Your task to perform on an android device: Clear all items from cart on costco. Add razer blade to the cart on costco, then select checkout. Image 0: 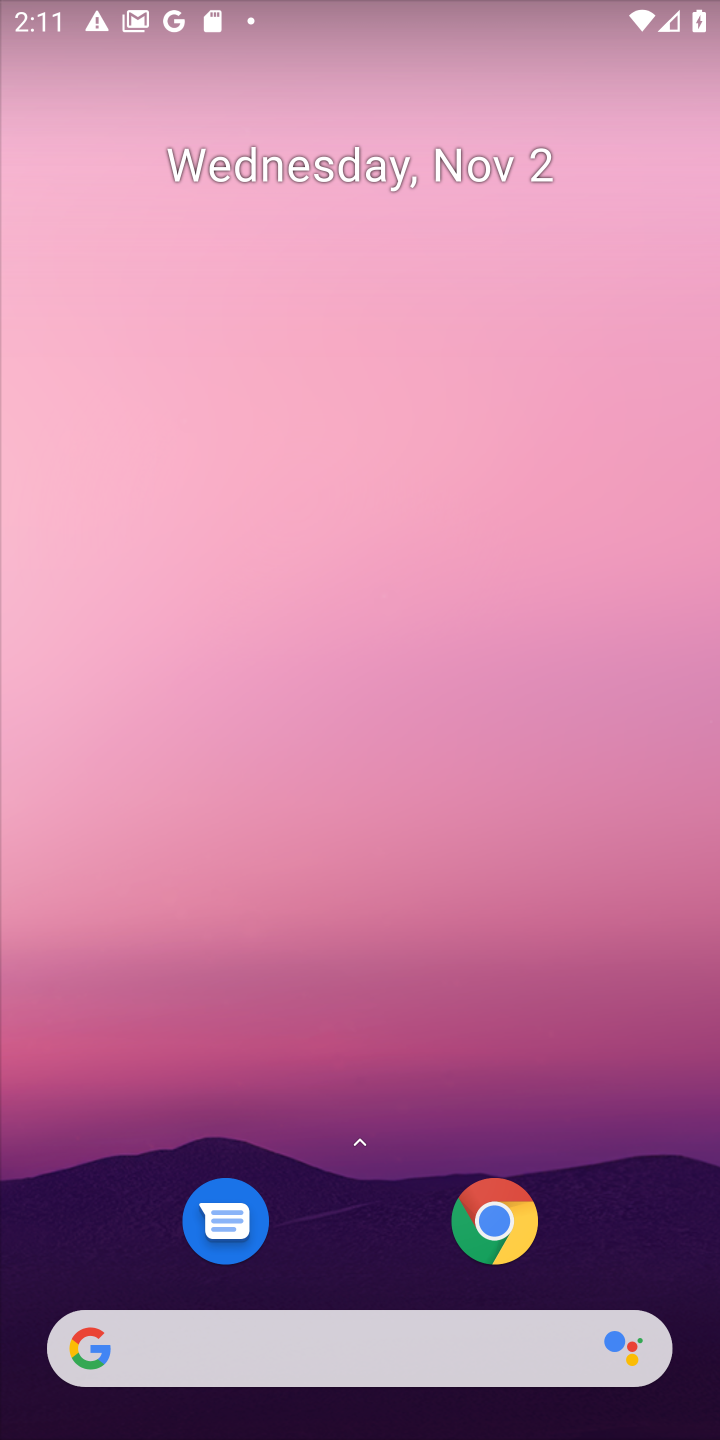
Step 0: click (443, 1348)
Your task to perform on an android device: Clear all items from cart on costco. Add razer blade to the cart on costco, then select checkout. Image 1: 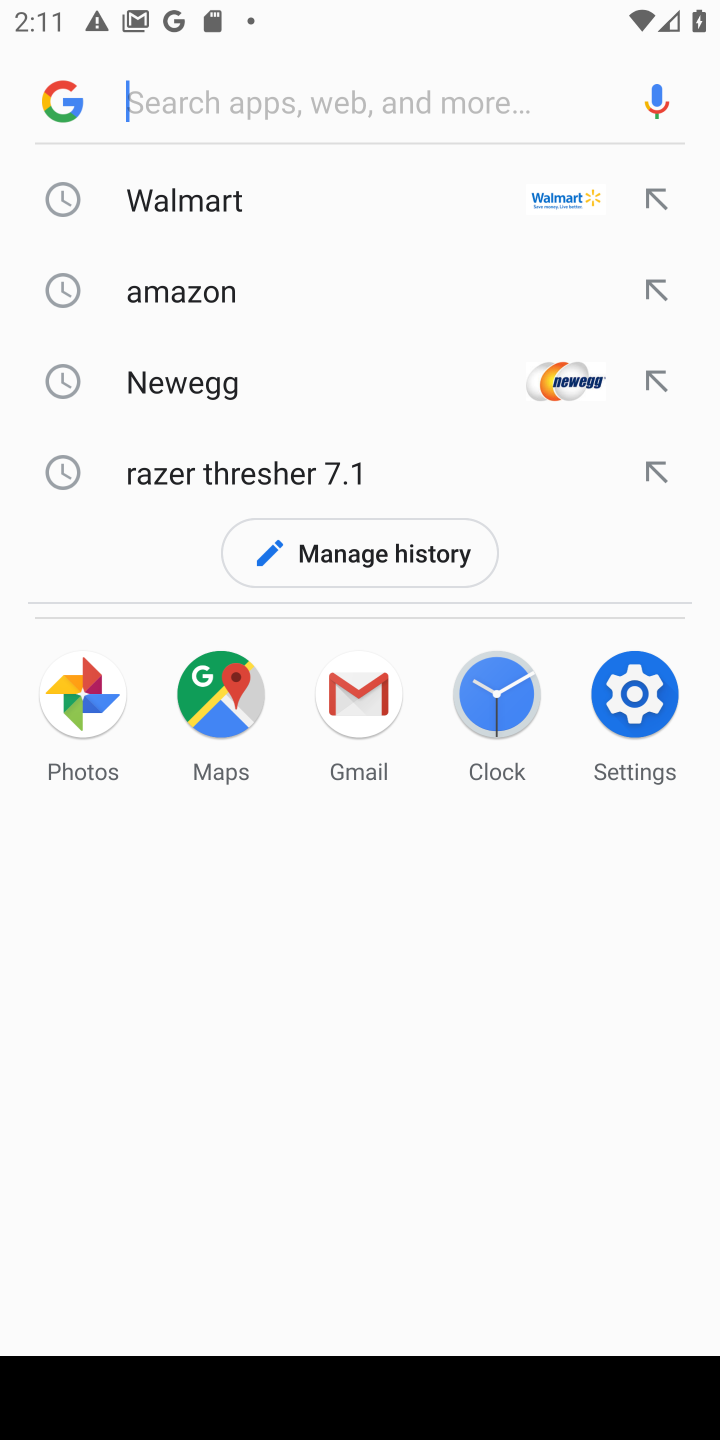
Step 1: type "costco"
Your task to perform on an android device: Clear all items from cart on costco. Add razer blade to the cart on costco, then select checkout. Image 2: 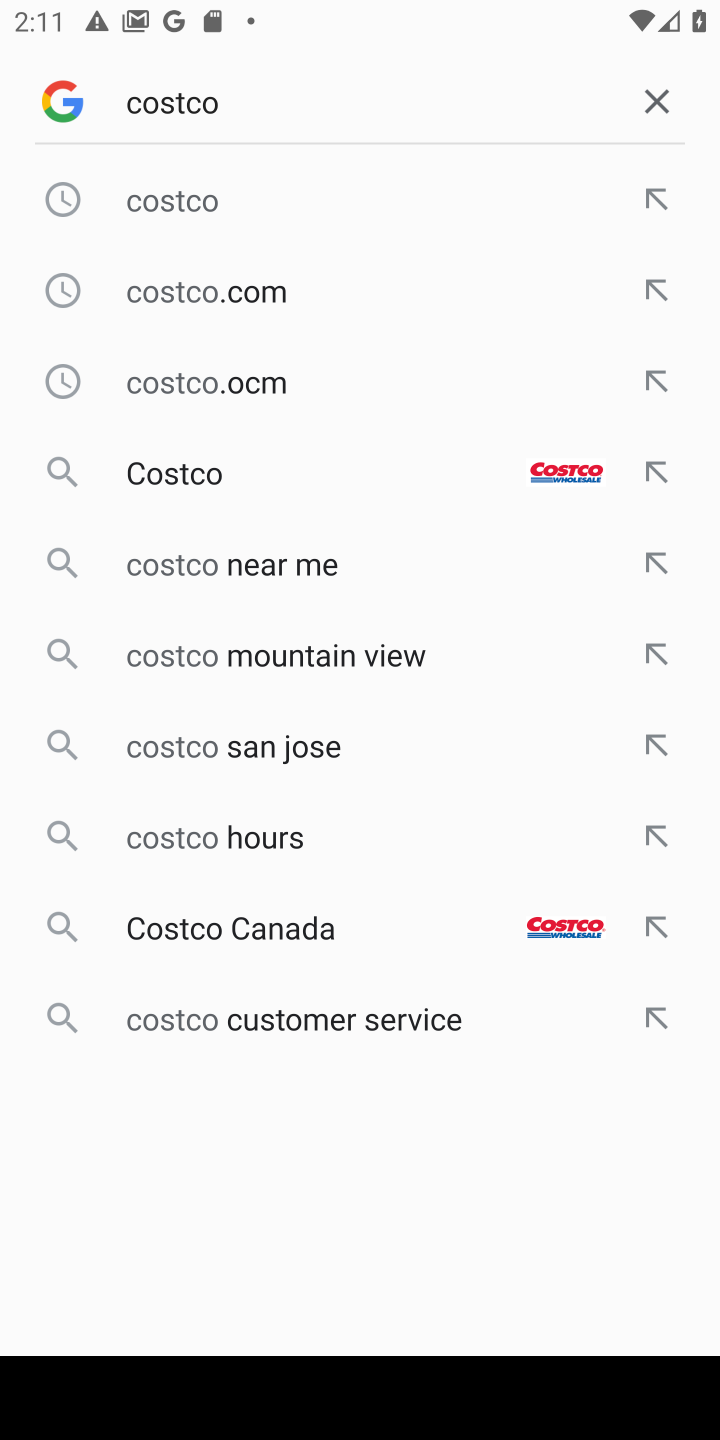
Step 2: click (337, 207)
Your task to perform on an android device: Clear all items from cart on costco. Add razer blade to the cart on costco, then select checkout. Image 3: 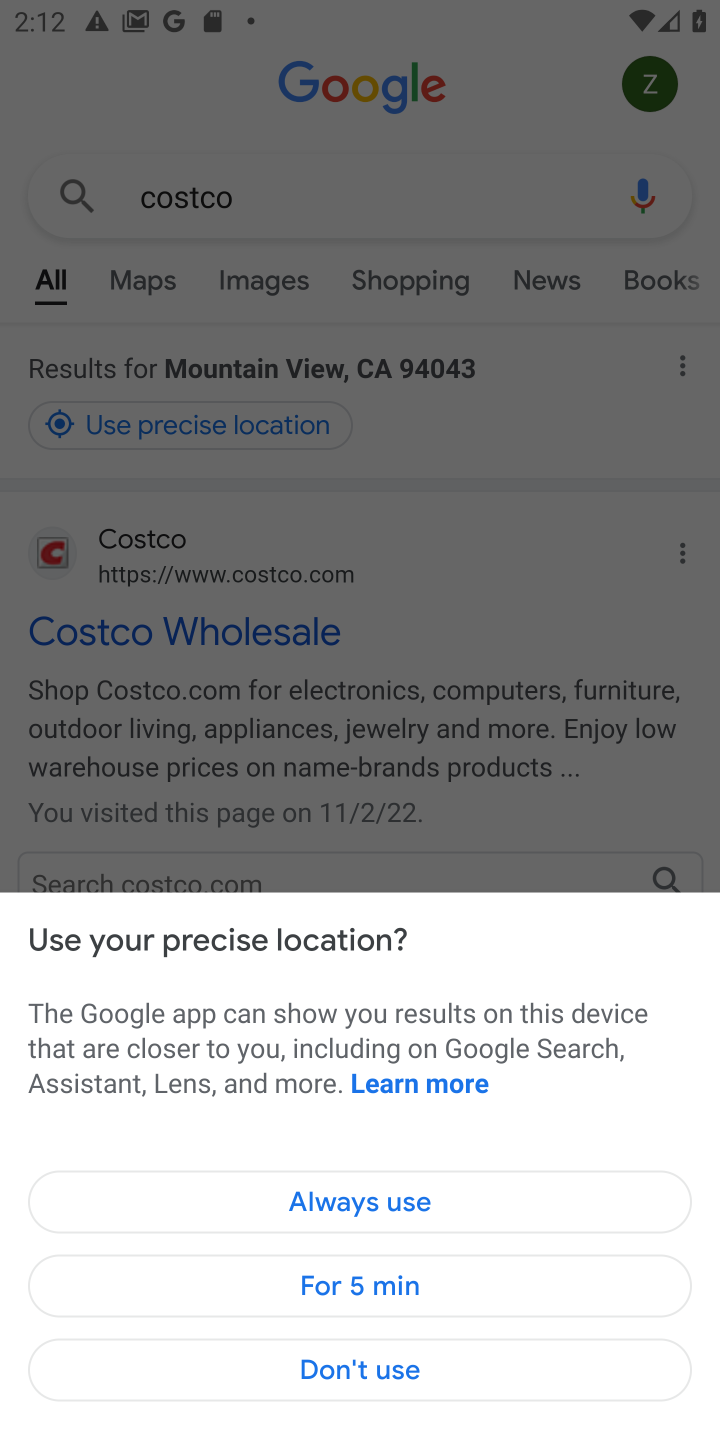
Step 3: click (451, 1182)
Your task to perform on an android device: Clear all items from cart on costco. Add razer blade to the cart on costco, then select checkout. Image 4: 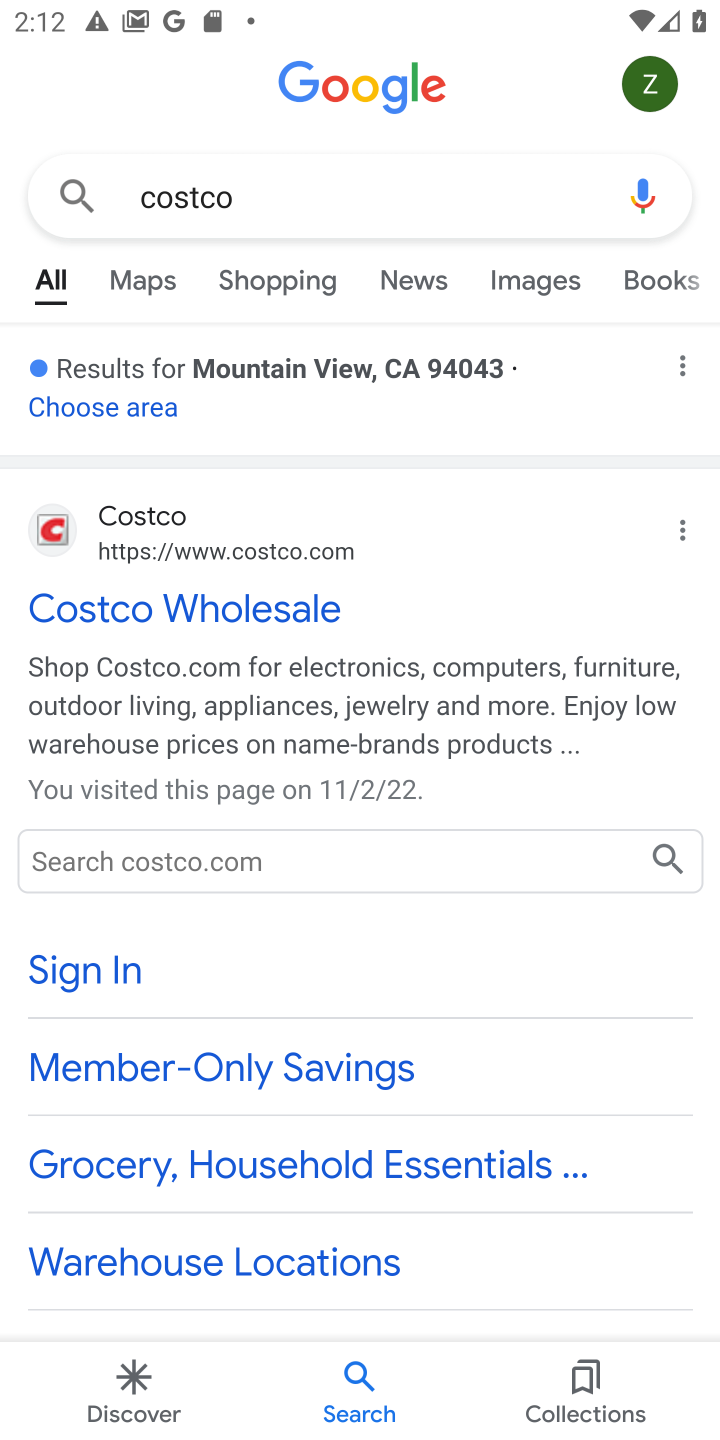
Step 4: click (195, 603)
Your task to perform on an android device: Clear all items from cart on costco. Add razer blade to the cart on costco, then select checkout. Image 5: 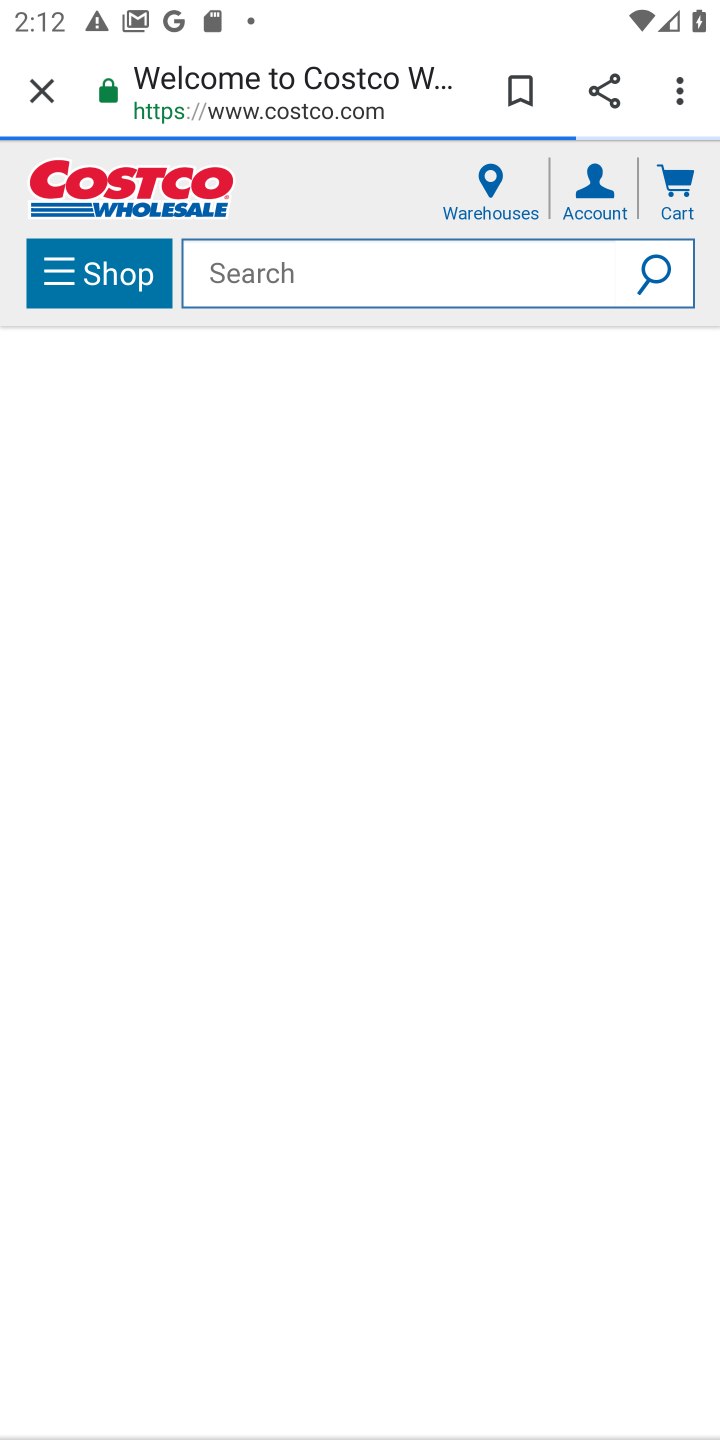
Step 5: click (376, 277)
Your task to perform on an android device: Clear all items from cart on costco. Add razer blade to the cart on costco, then select checkout. Image 6: 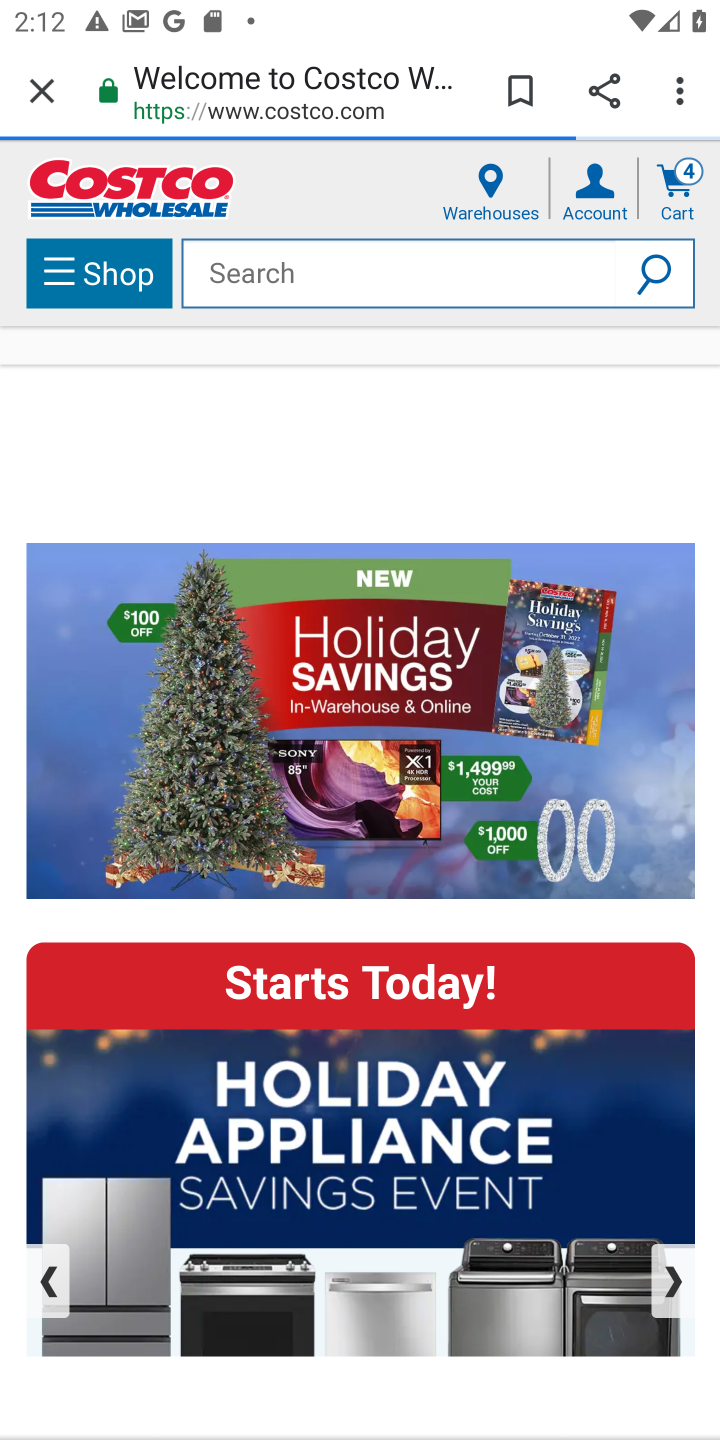
Step 6: type "razor blade"
Your task to perform on an android device: Clear all items from cart on costco. Add razer blade to the cart on costco, then select checkout. Image 7: 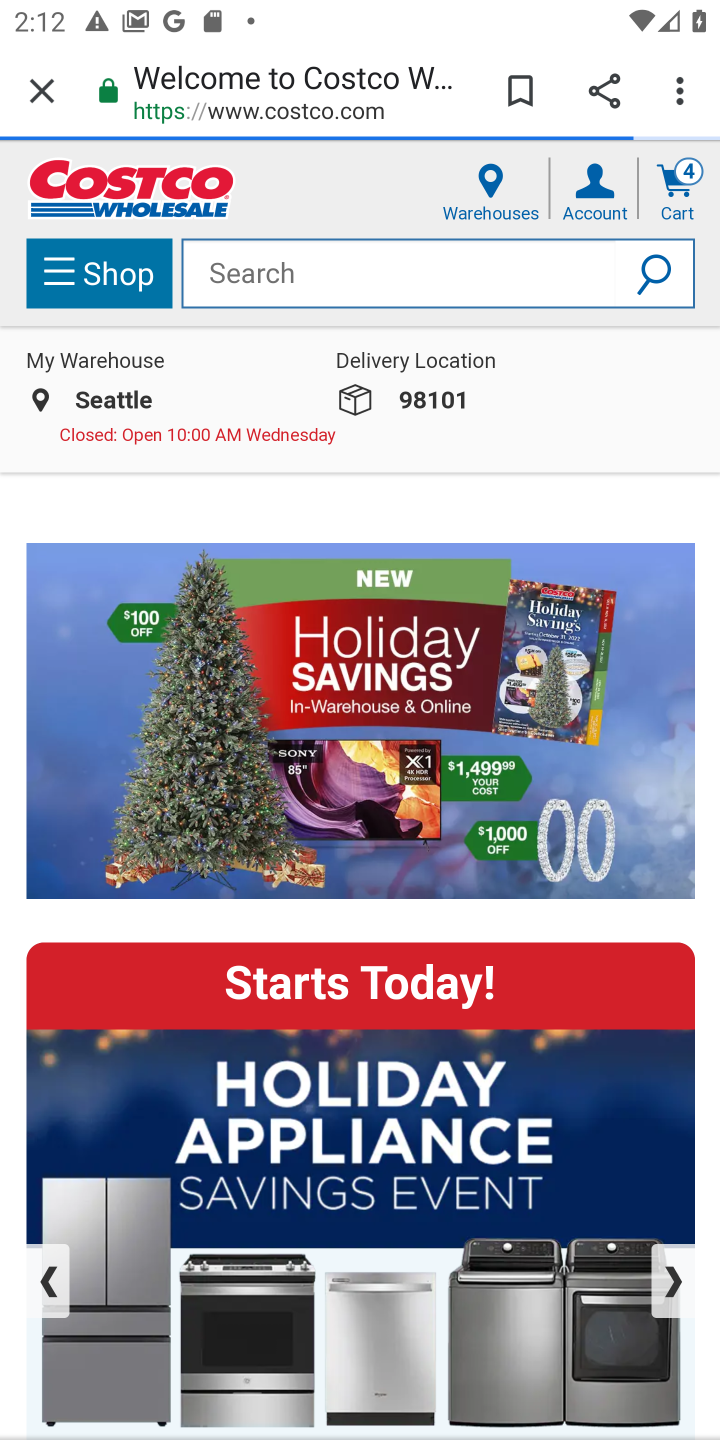
Step 7: click (448, 281)
Your task to perform on an android device: Clear all items from cart on costco. Add razer blade to the cart on costco, then select checkout. Image 8: 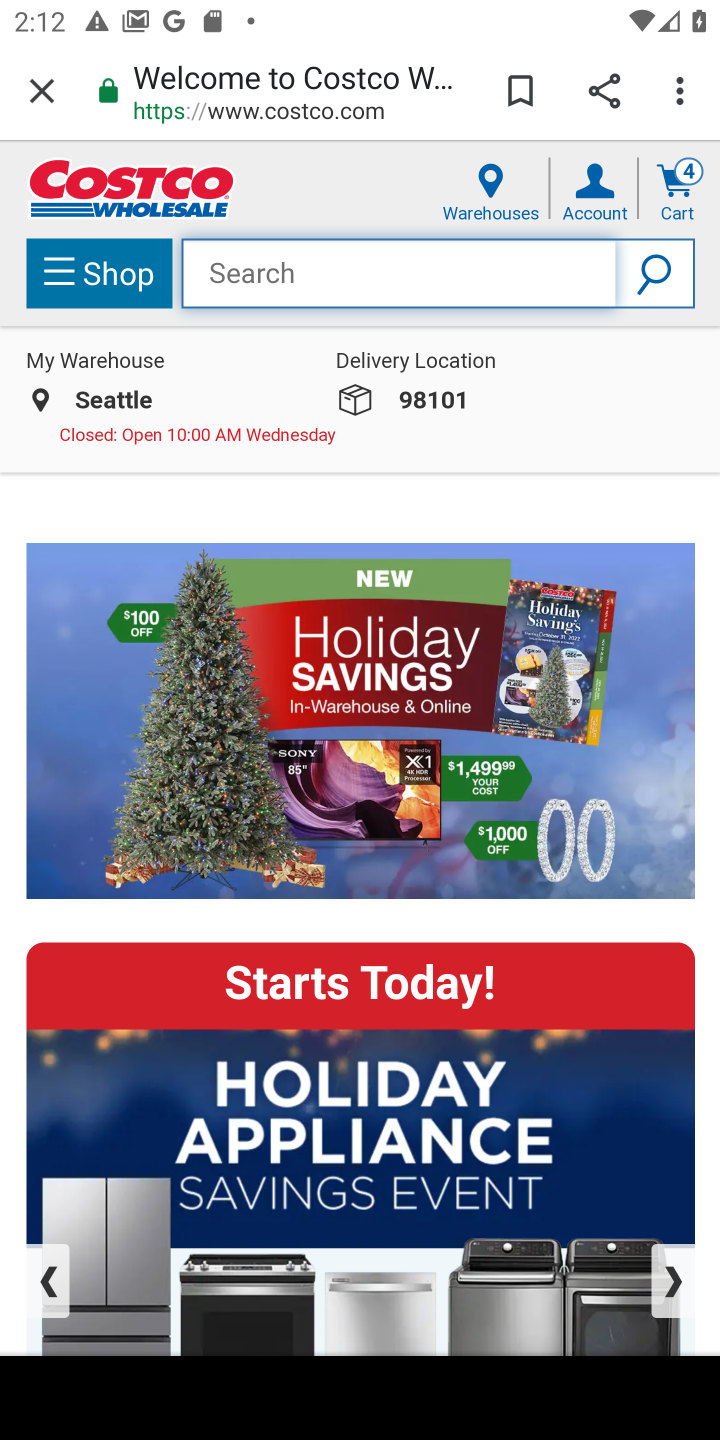
Step 8: type "razer blade"
Your task to perform on an android device: Clear all items from cart on costco. Add razer blade to the cart on costco, then select checkout. Image 9: 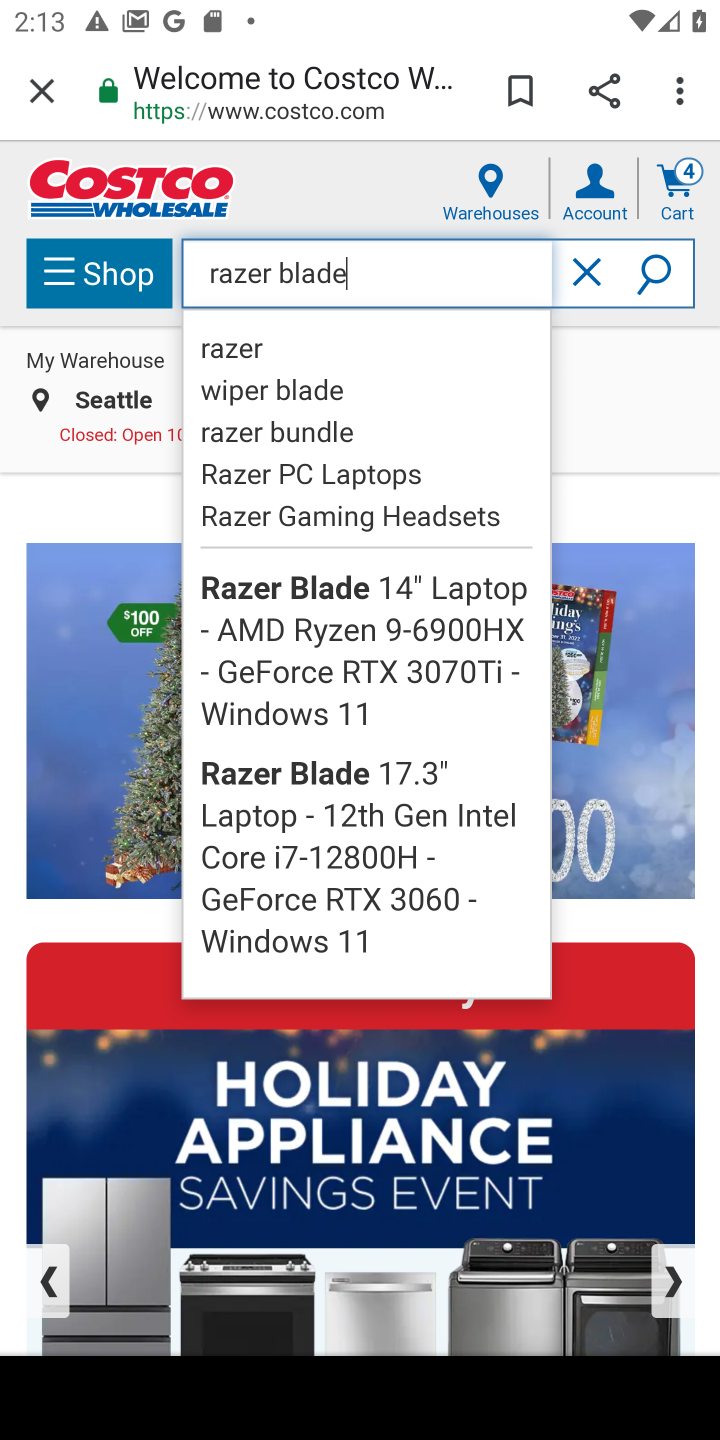
Step 9: click (648, 289)
Your task to perform on an android device: Clear all items from cart on costco. Add razer blade to the cart on costco, then select checkout. Image 10: 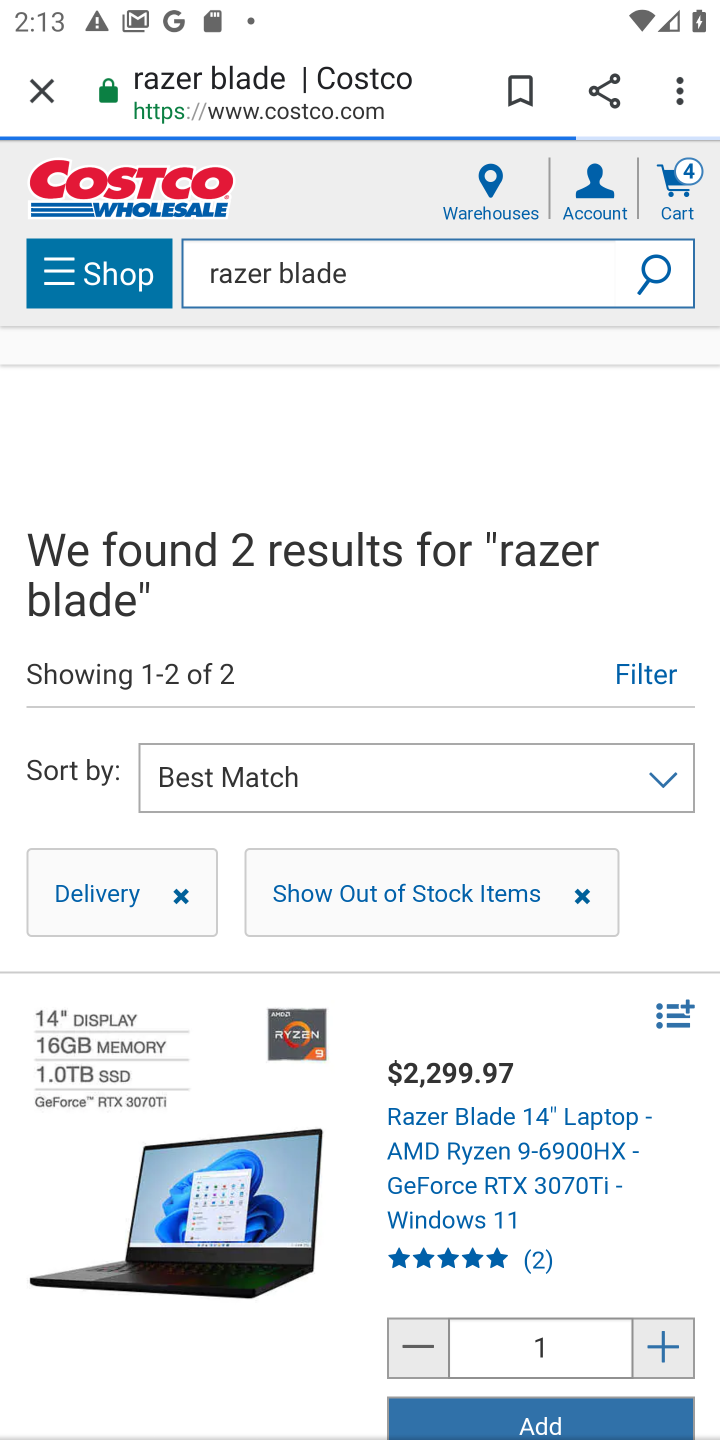
Step 10: click (495, 1425)
Your task to perform on an android device: Clear all items from cart on costco. Add razer blade to the cart on costco, then select checkout. Image 11: 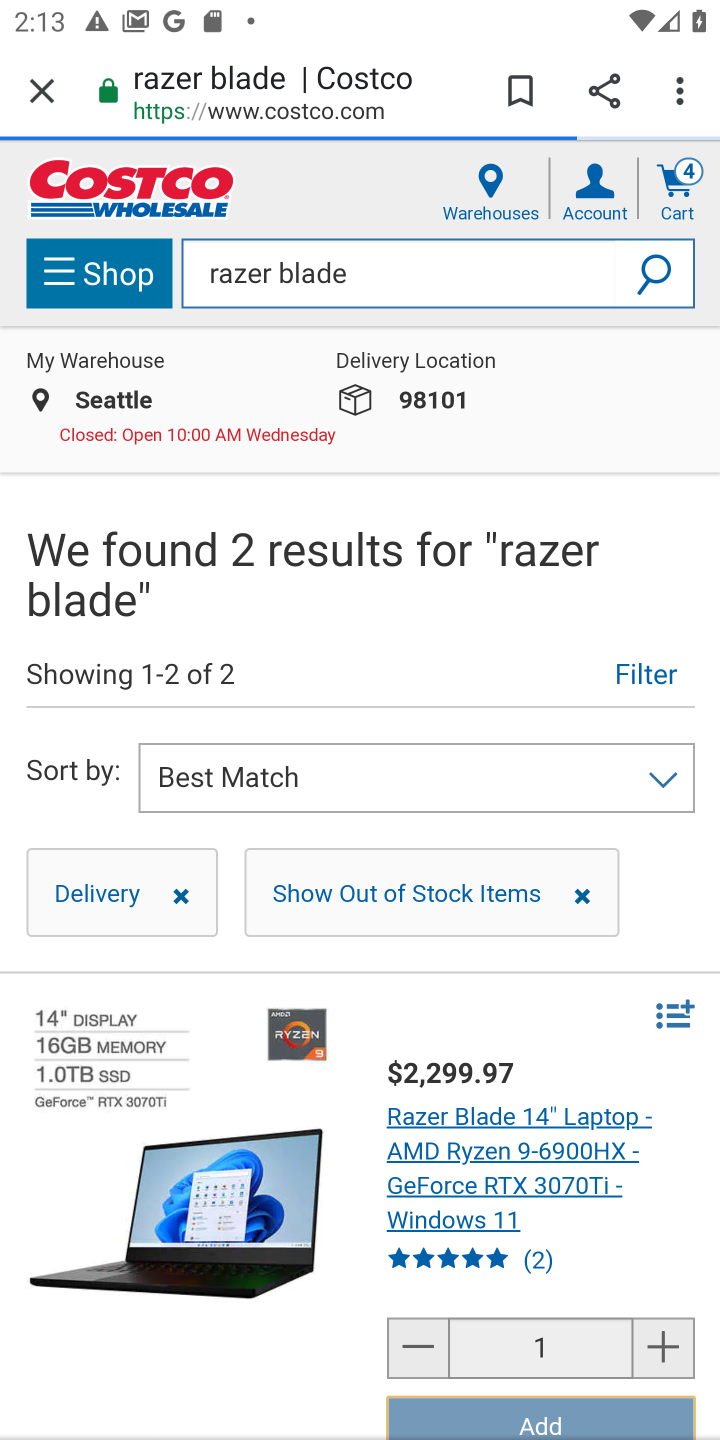
Step 11: task complete